Your task to perform on an android device: check android version Image 0: 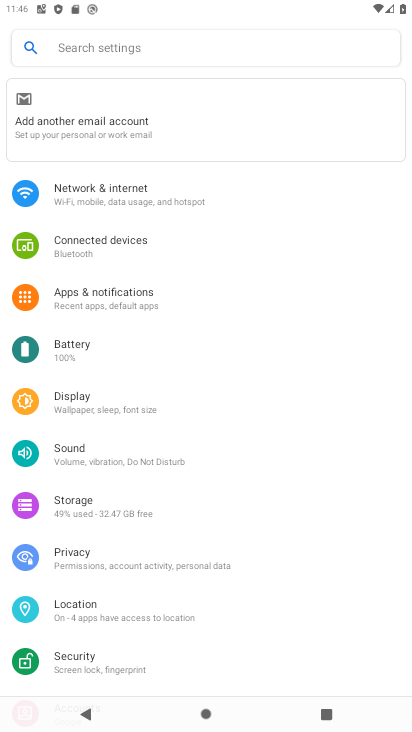
Step 0: drag from (78, 493) to (97, 33)
Your task to perform on an android device: check android version Image 1: 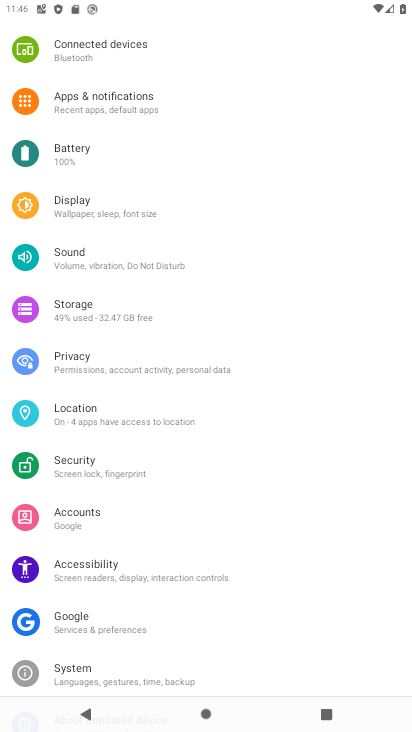
Step 1: drag from (69, 563) to (93, 44)
Your task to perform on an android device: check android version Image 2: 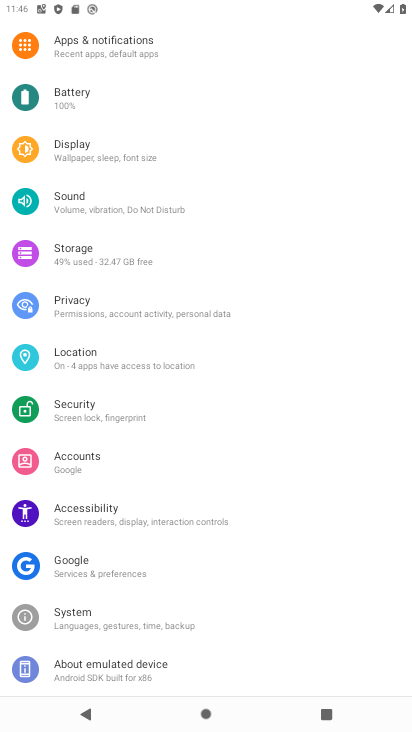
Step 2: click (62, 664)
Your task to perform on an android device: check android version Image 3: 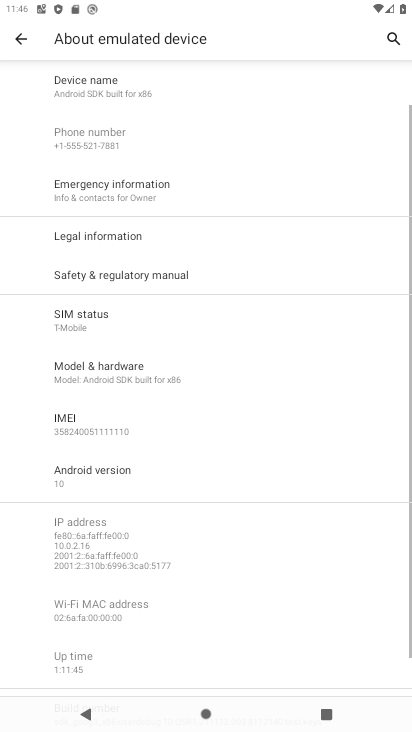
Step 3: click (80, 471)
Your task to perform on an android device: check android version Image 4: 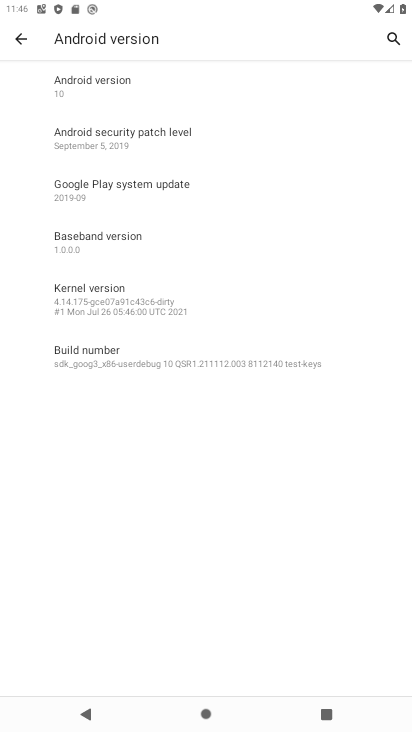
Step 4: task complete